Your task to perform on an android device: Open location settings Image 0: 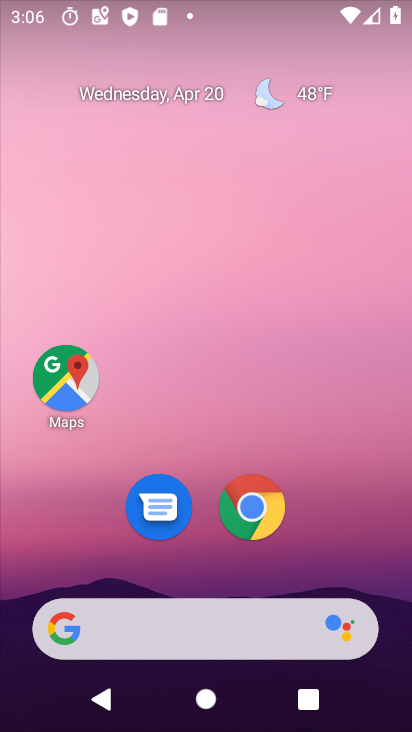
Step 0: drag from (198, 616) to (245, 130)
Your task to perform on an android device: Open location settings Image 1: 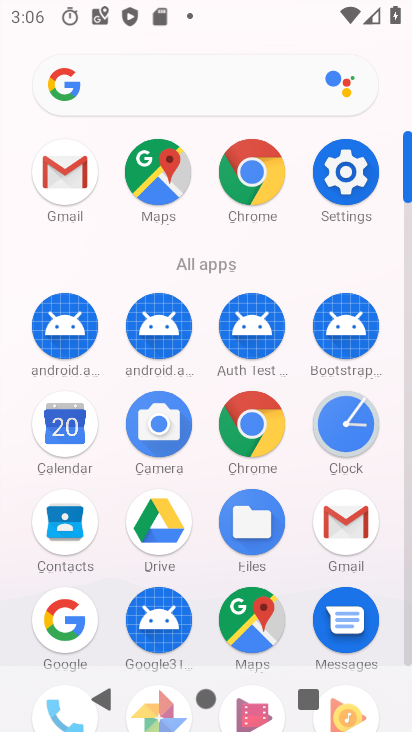
Step 1: click (321, 183)
Your task to perform on an android device: Open location settings Image 2: 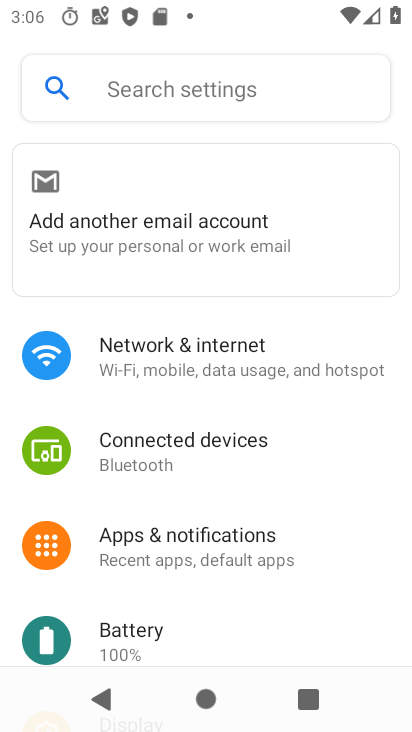
Step 2: drag from (213, 600) to (263, 184)
Your task to perform on an android device: Open location settings Image 3: 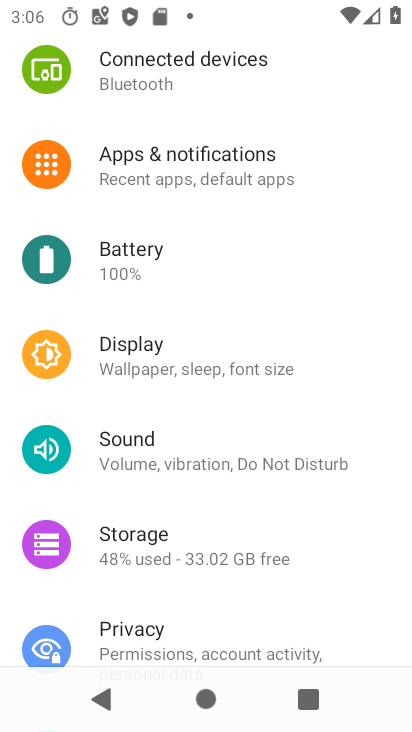
Step 3: drag from (187, 583) to (196, 128)
Your task to perform on an android device: Open location settings Image 4: 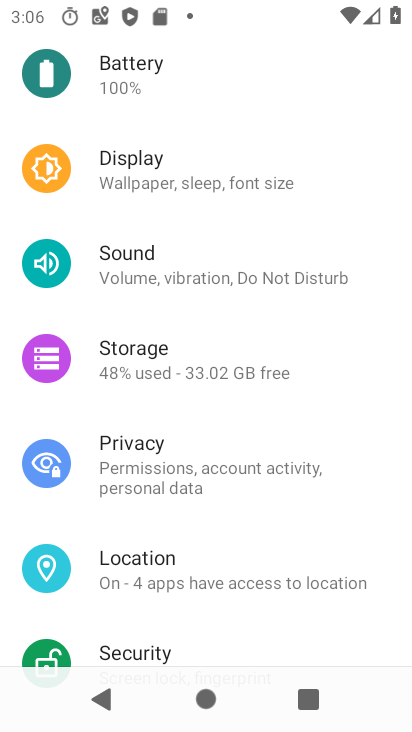
Step 4: click (148, 562)
Your task to perform on an android device: Open location settings Image 5: 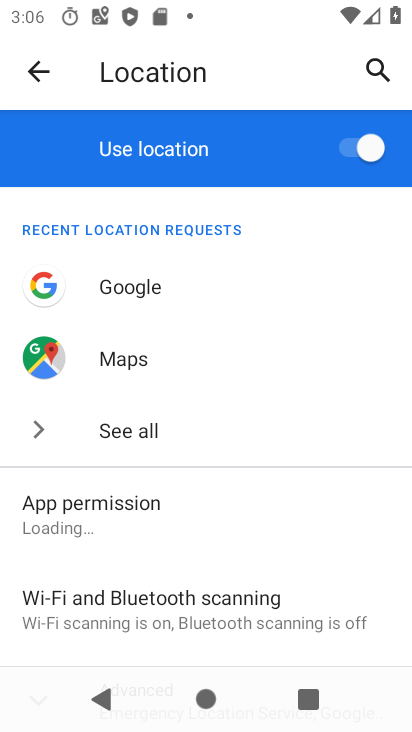
Step 5: task complete